Your task to perform on an android device: Go to Android settings Image 0: 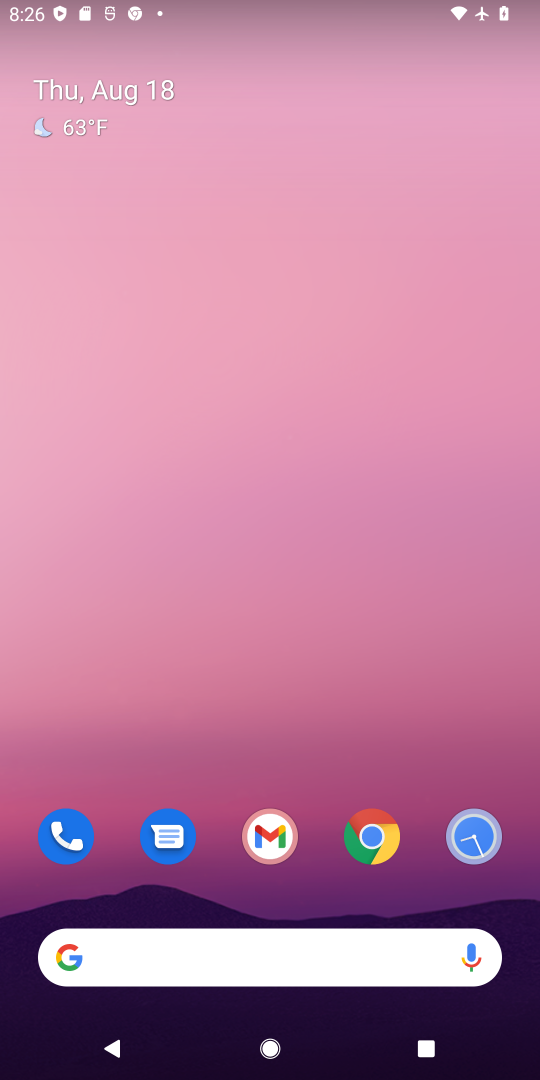
Step 0: drag from (308, 871) to (249, 167)
Your task to perform on an android device: Go to Android settings Image 1: 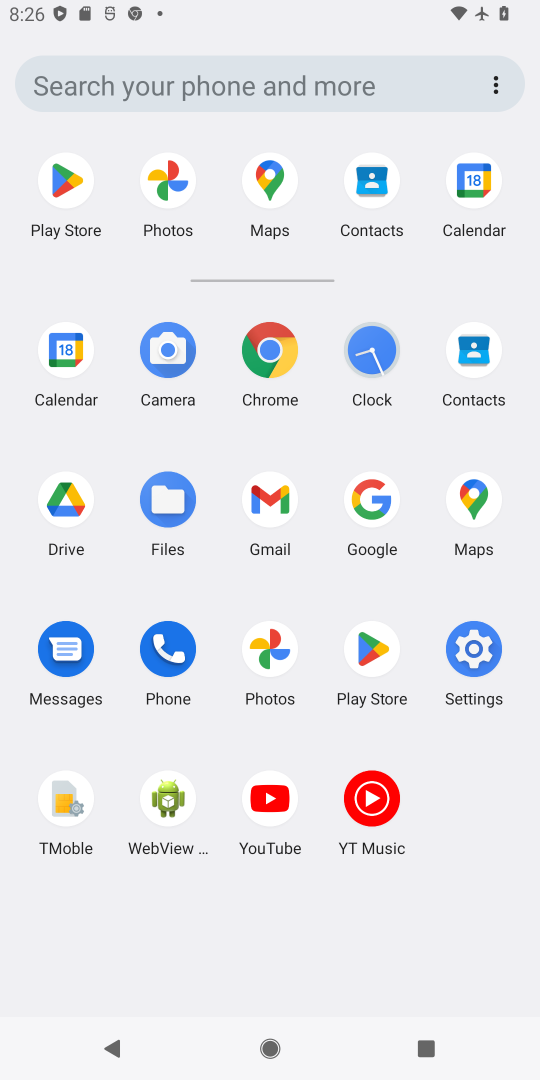
Step 1: click (491, 651)
Your task to perform on an android device: Go to Android settings Image 2: 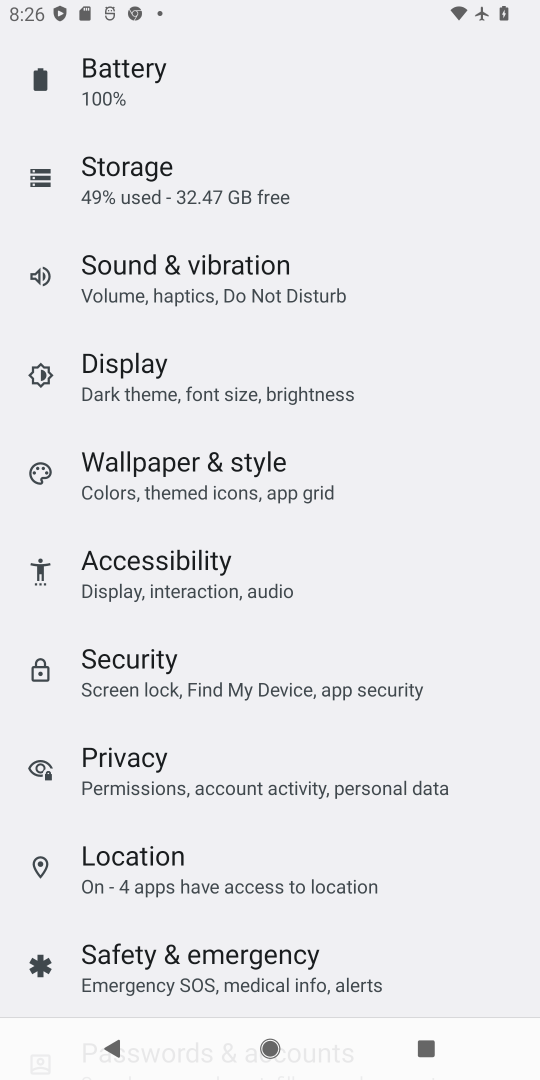
Step 2: task complete